Your task to perform on an android device: turn on javascript in the chrome app Image 0: 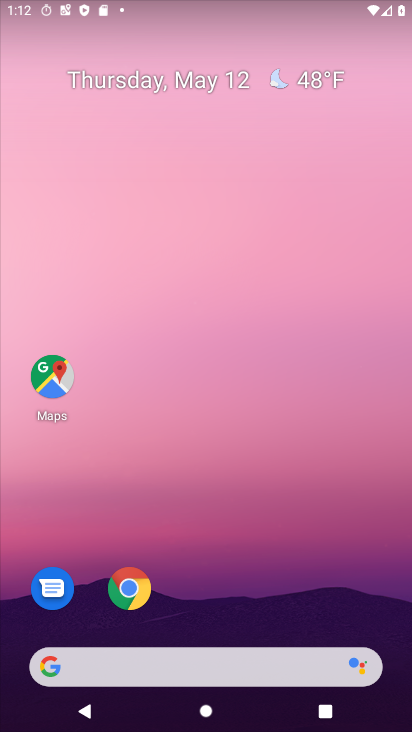
Step 0: click (129, 583)
Your task to perform on an android device: turn on javascript in the chrome app Image 1: 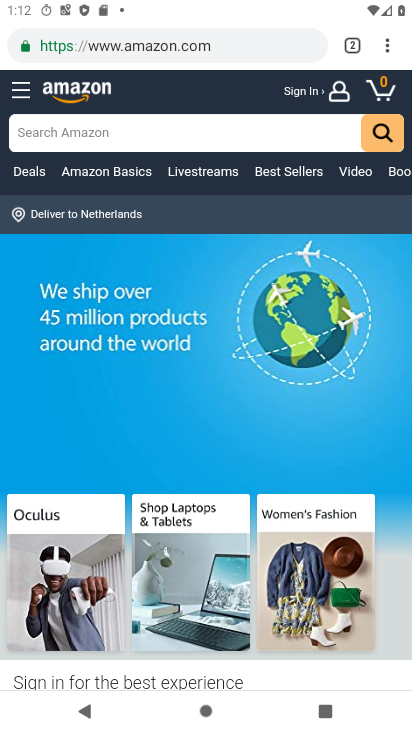
Step 1: click (381, 46)
Your task to perform on an android device: turn on javascript in the chrome app Image 2: 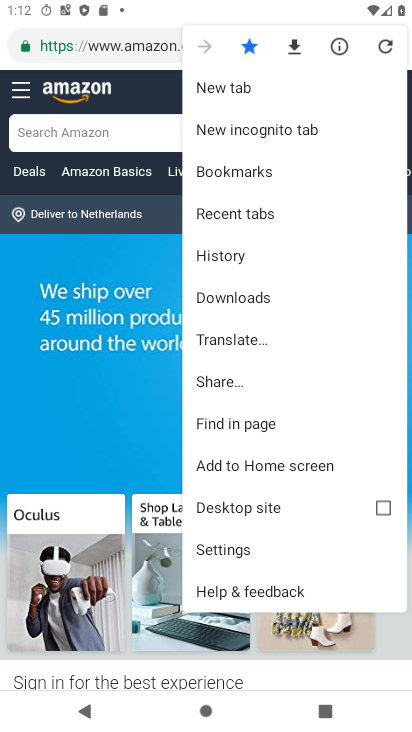
Step 2: click (248, 554)
Your task to perform on an android device: turn on javascript in the chrome app Image 3: 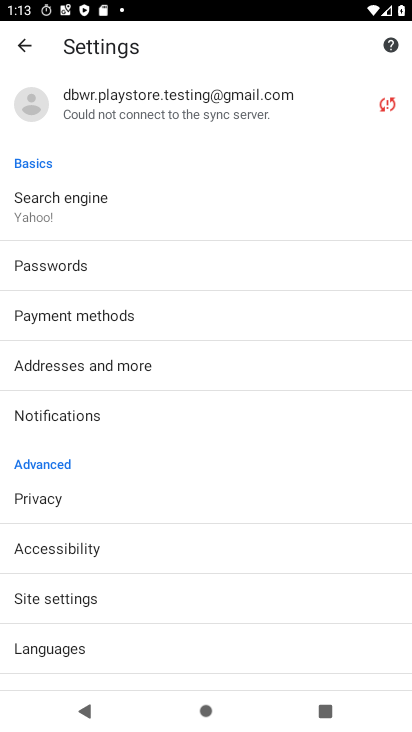
Step 3: click (93, 596)
Your task to perform on an android device: turn on javascript in the chrome app Image 4: 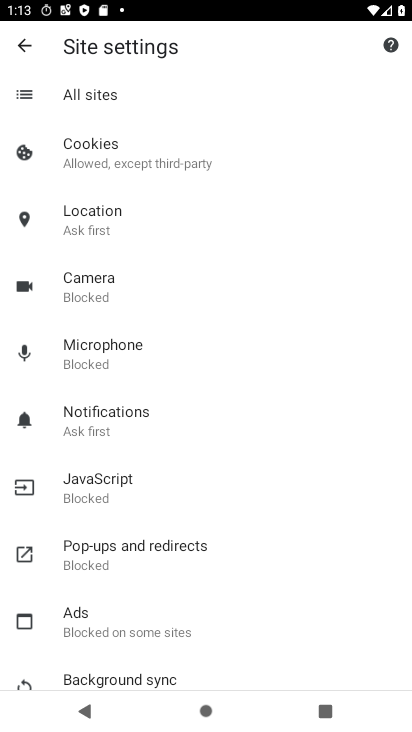
Step 4: click (118, 497)
Your task to perform on an android device: turn on javascript in the chrome app Image 5: 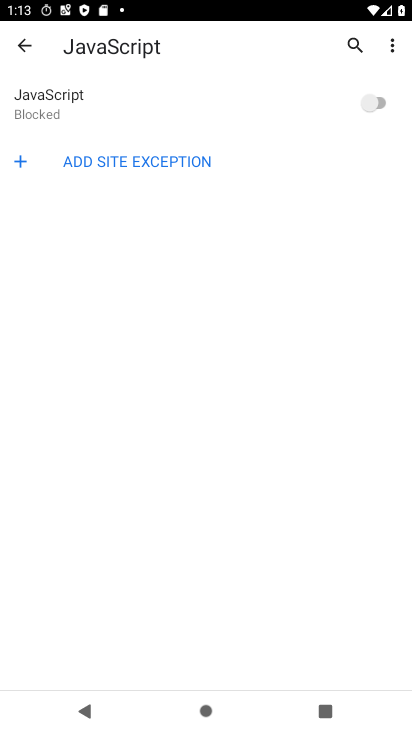
Step 5: click (388, 105)
Your task to perform on an android device: turn on javascript in the chrome app Image 6: 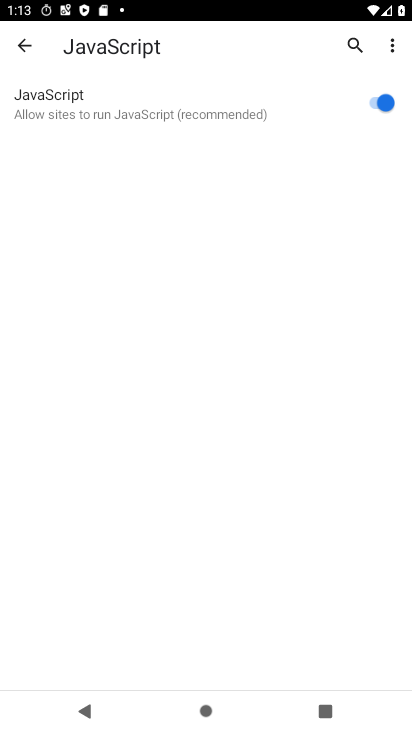
Step 6: task complete